Your task to perform on an android device: Open Google Chrome Image 0: 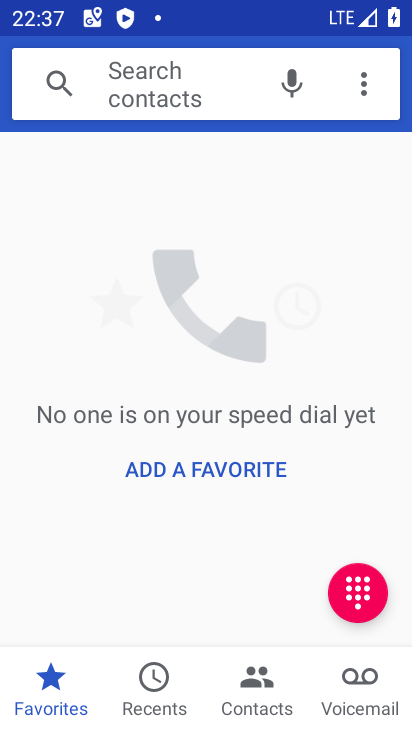
Step 0: press home button
Your task to perform on an android device: Open Google Chrome Image 1: 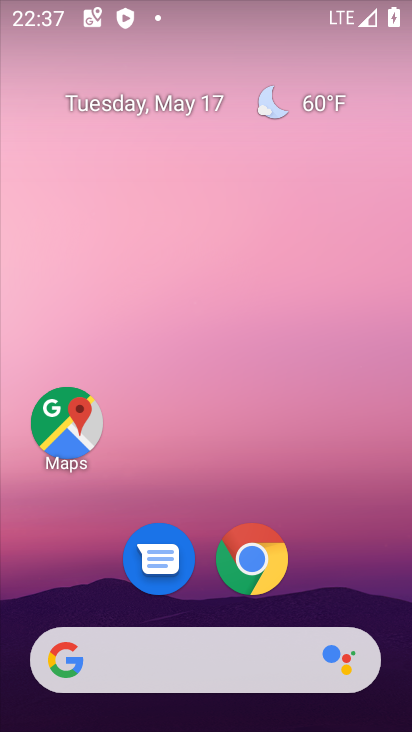
Step 1: click (259, 558)
Your task to perform on an android device: Open Google Chrome Image 2: 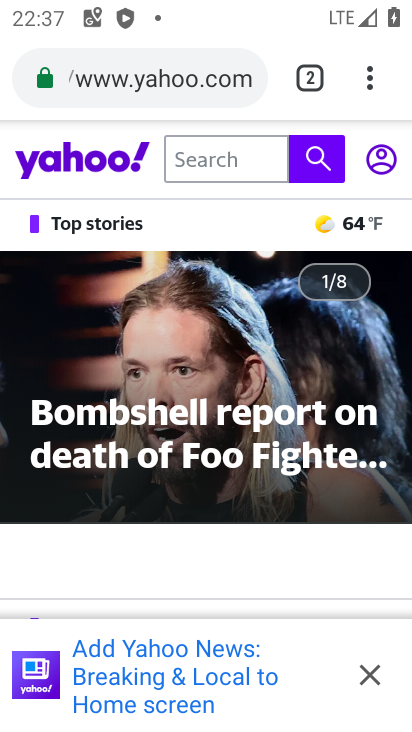
Step 2: task complete